Your task to perform on an android device: read, delete, or share a saved page in the chrome app Image 0: 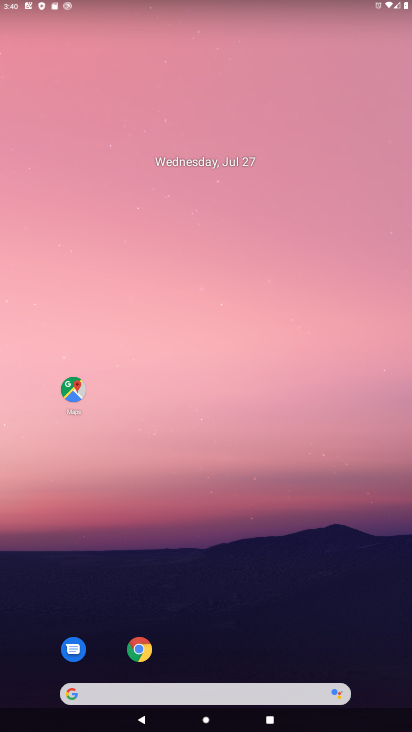
Step 0: click (140, 652)
Your task to perform on an android device: read, delete, or share a saved page in the chrome app Image 1: 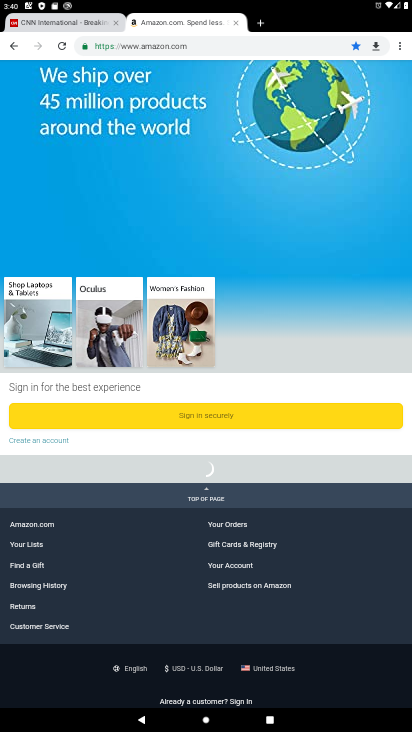
Step 1: click (401, 50)
Your task to perform on an android device: read, delete, or share a saved page in the chrome app Image 2: 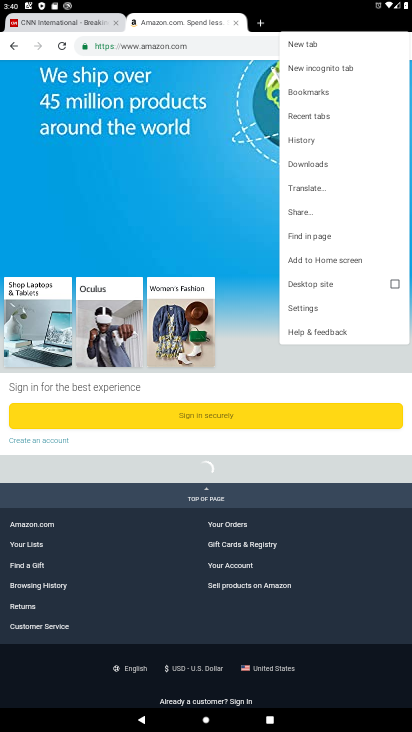
Step 2: click (304, 166)
Your task to perform on an android device: read, delete, or share a saved page in the chrome app Image 3: 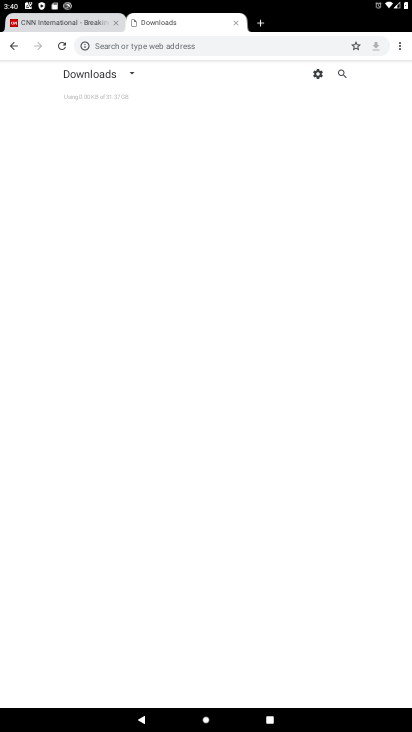
Step 3: click (130, 70)
Your task to perform on an android device: read, delete, or share a saved page in the chrome app Image 4: 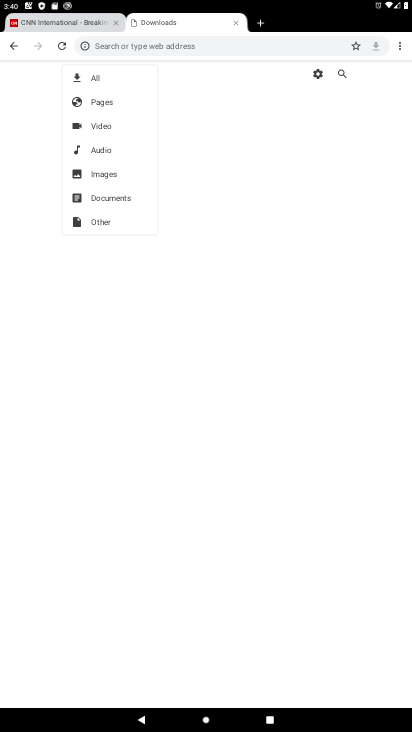
Step 4: click (100, 93)
Your task to perform on an android device: read, delete, or share a saved page in the chrome app Image 5: 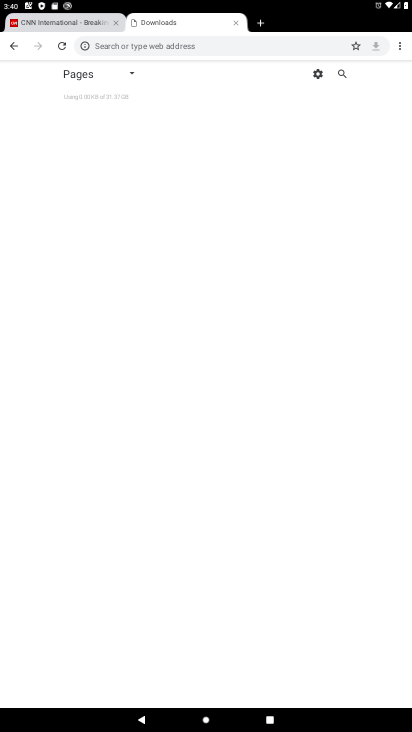
Step 5: task complete